Your task to perform on an android device: Empty the shopping cart on target. Search for "macbook pro" on target, select the first entry, and add it to the cart. Image 0: 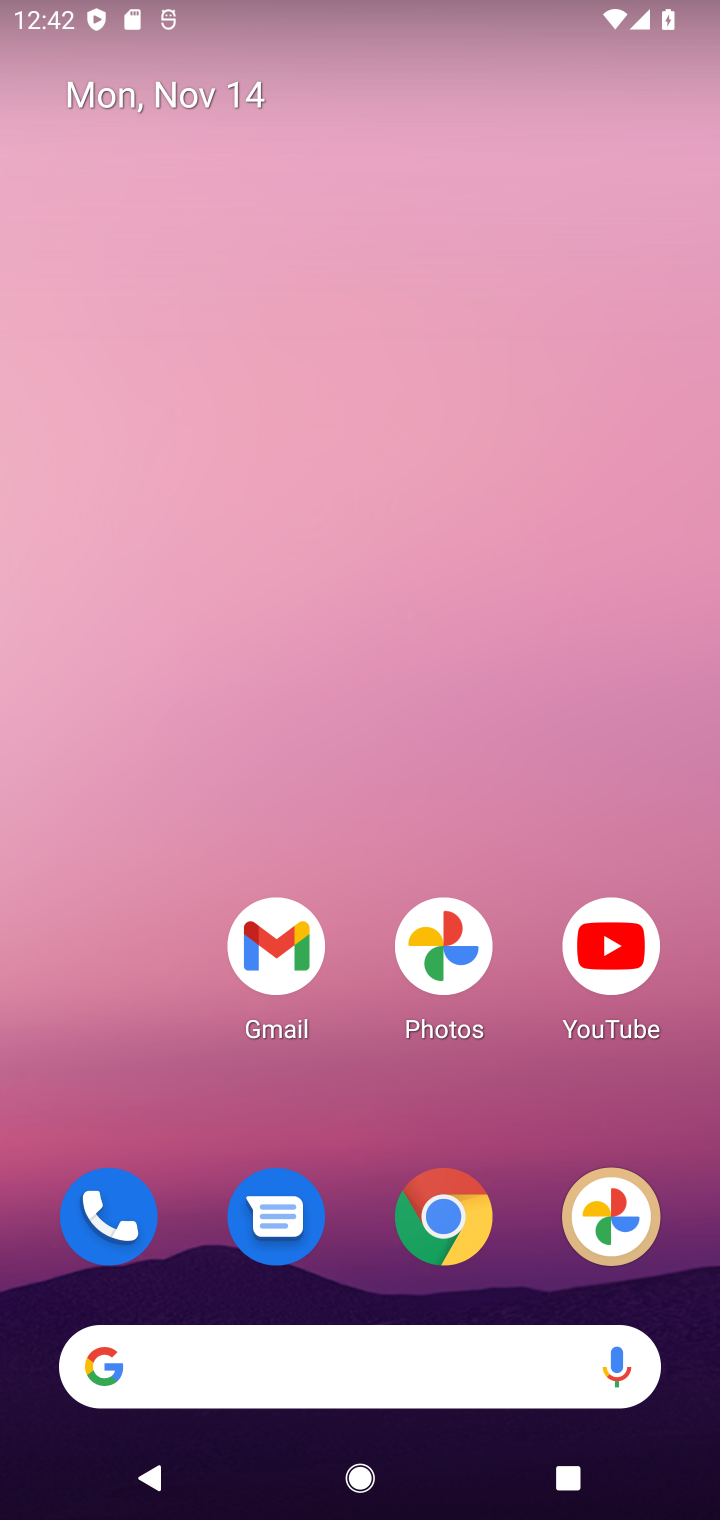
Step 0: click (470, 1222)
Your task to perform on an android device: Empty the shopping cart on target. Search for "macbook pro" on target, select the first entry, and add it to the cart. Image 1: 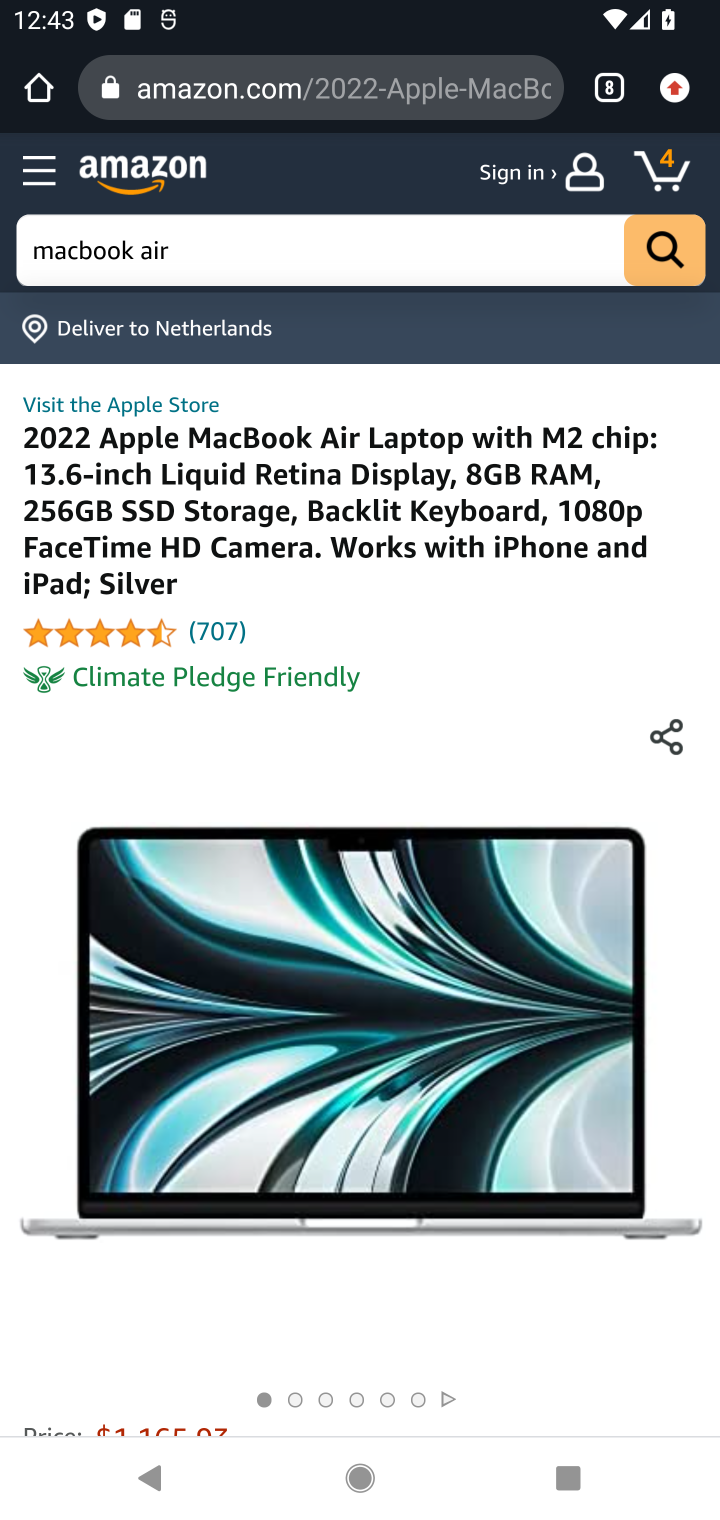
Step 1: click (480, 1155)
Your task to perform on an android device: Empty the shopping cart on target. Search for "macbook pro" on target, select the first entry, and add it to the cart. Image 2: 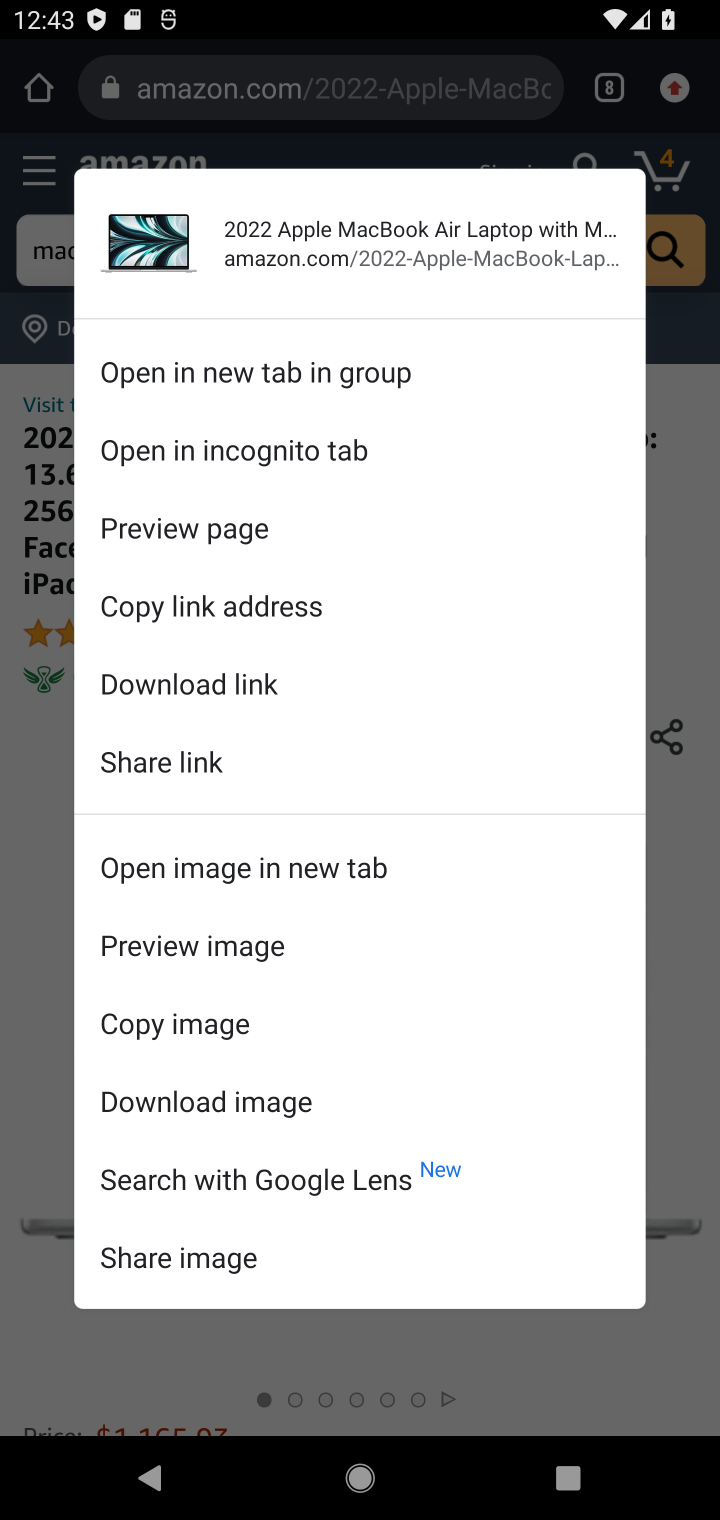
Step 2: click (480, 1146)
Your task to perform on an android device: Empty the shopping cart on target. Search for "macbook pro" on target, select the first entry, and add it to the cart. Image 3: 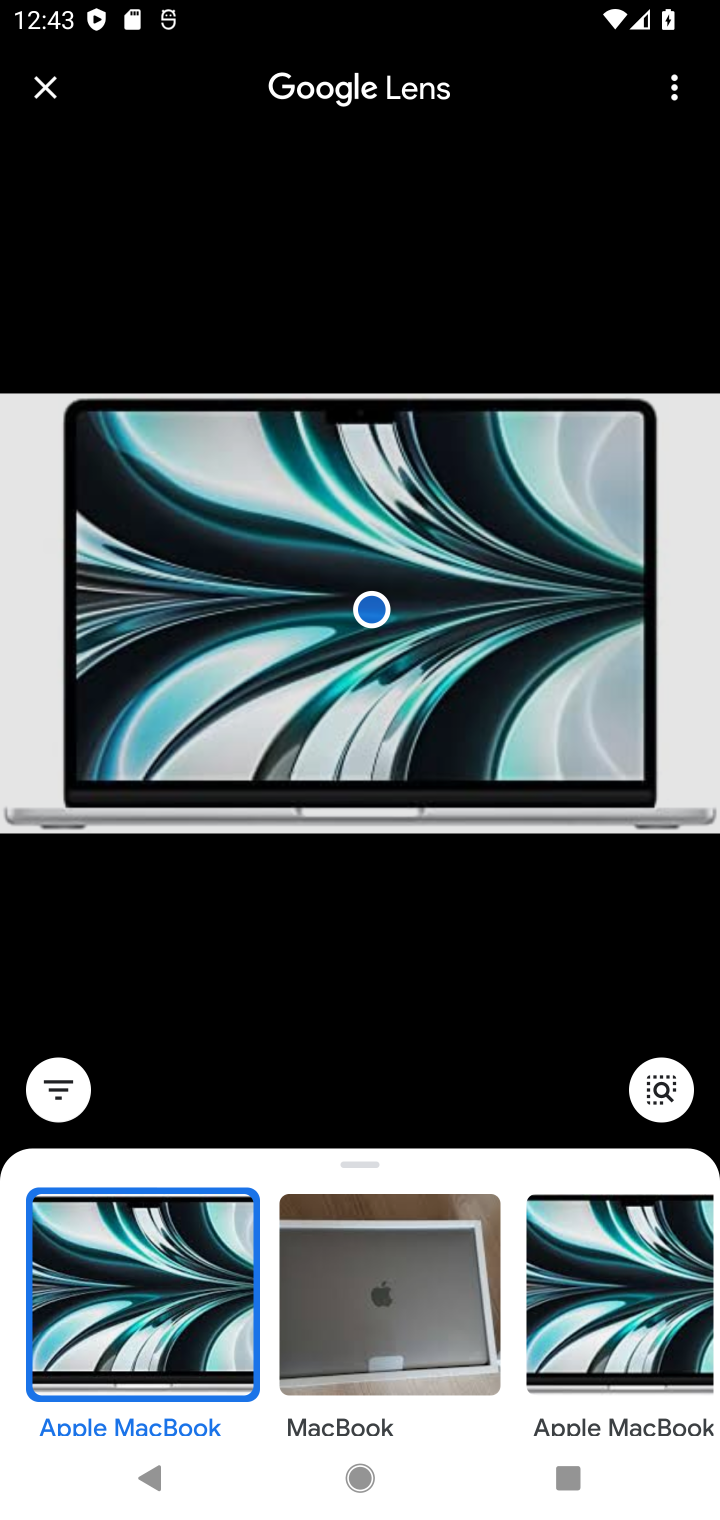
Step 3: press back button
Your task to perform on an android device: Empty the shopping cart on target. Search for "macbook pro" on target, select the first entry, and add it to the cart. Image 4: 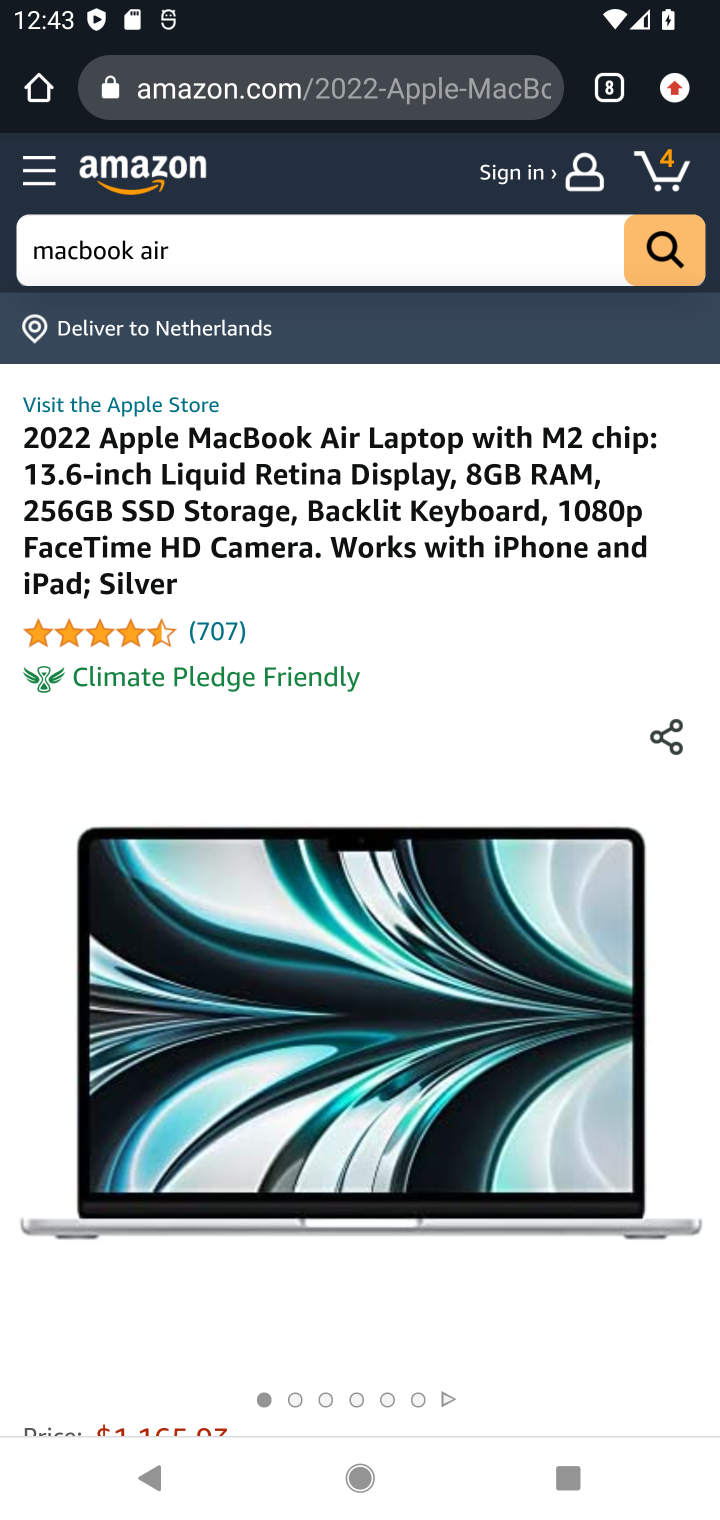
Step 4: press home button
Your task to perform on an android device: Empty the shopping cart on target. Search for "macbook pro" on target, select the first entry, and add it to the cart. Image 5: 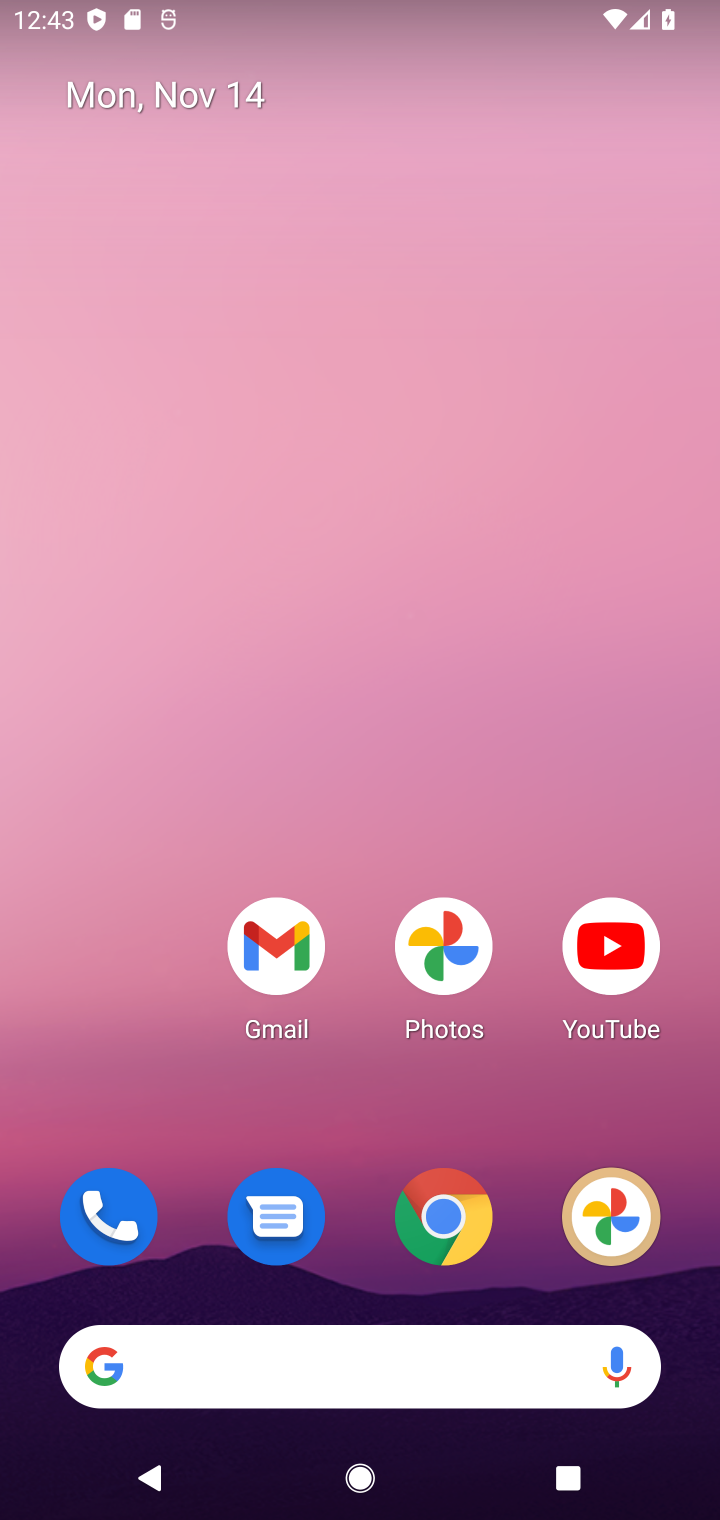
Step 5: click (431, 1179)
Your task to perform on an android device: Empty the shopping cart on target. Search for "macbook pro" on target, select the first entry, and add it to the cart. Image 6: 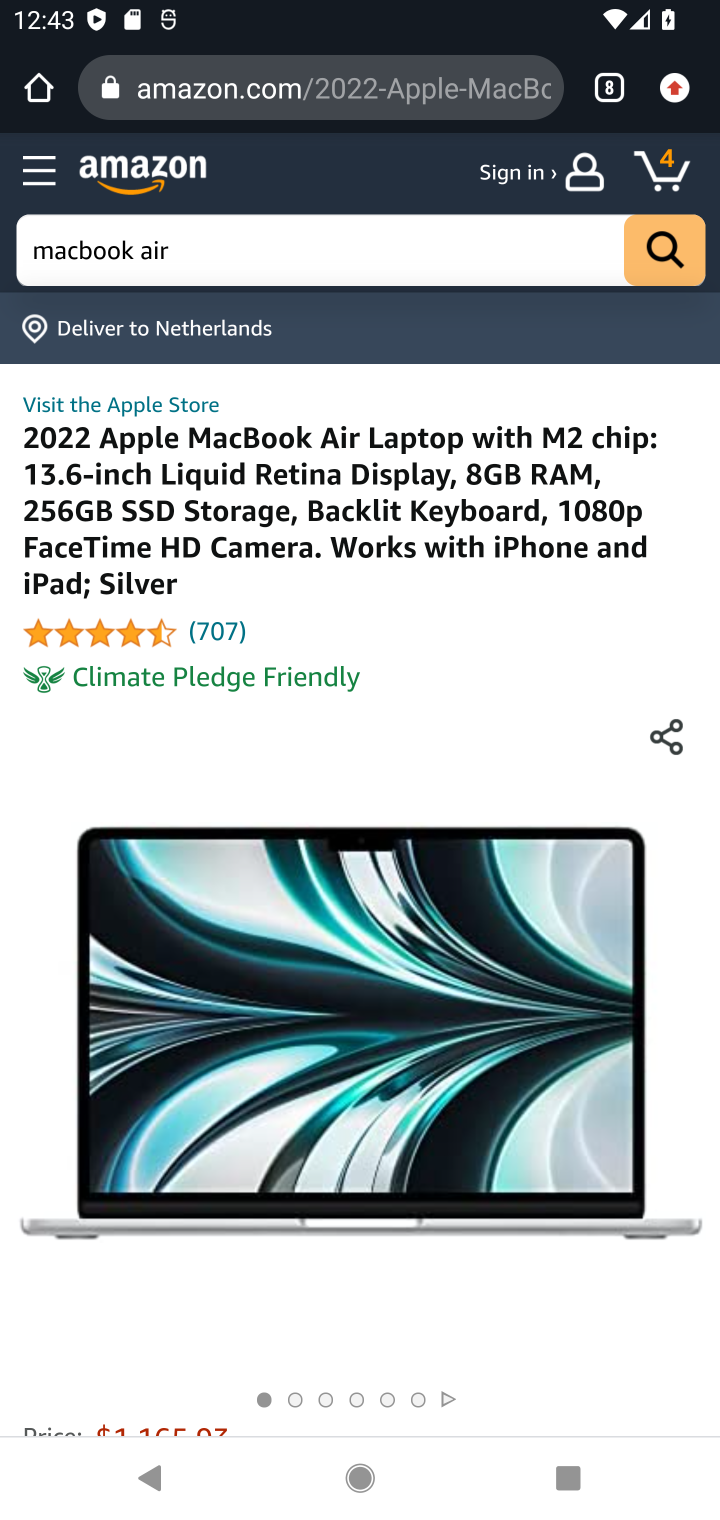
Step 6: click (612, 78)
Your task to perform on an android device: Empty the shopping cart on target. Search for "macbook pro" on target, select the first entry, and add it to the cart. Image 7: 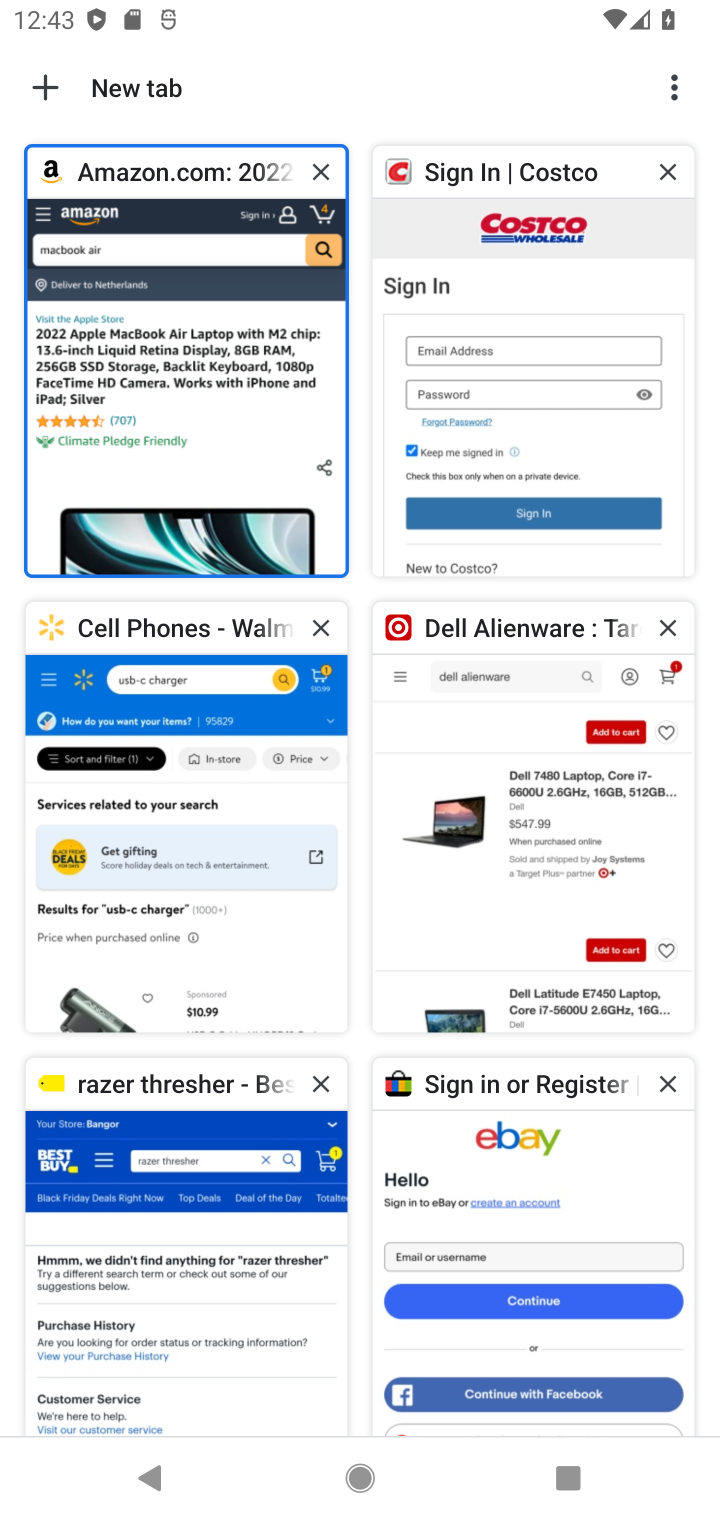
Step 7: click (438, 857)
Your task to perform on an android device: Empty the shopping cart on target. Search for "macbook pro" on target, select the first entry, and add it to the cart. Image 8: 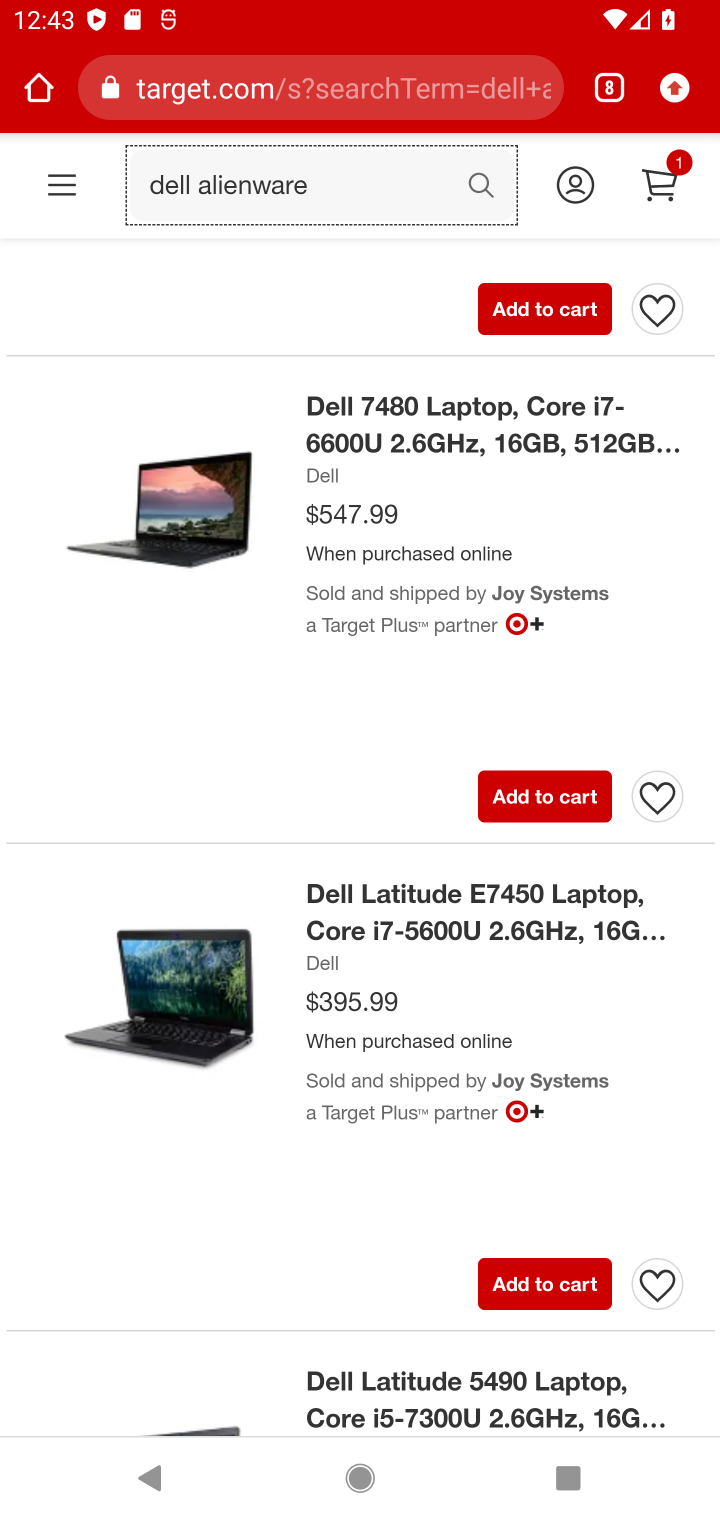
Step 8: click (664, 178)
Your task to perform on an android device: Empty the shopping cart on target. Search for "macbook pro" on target, select the first entry, and add it to the cart. Image 9: 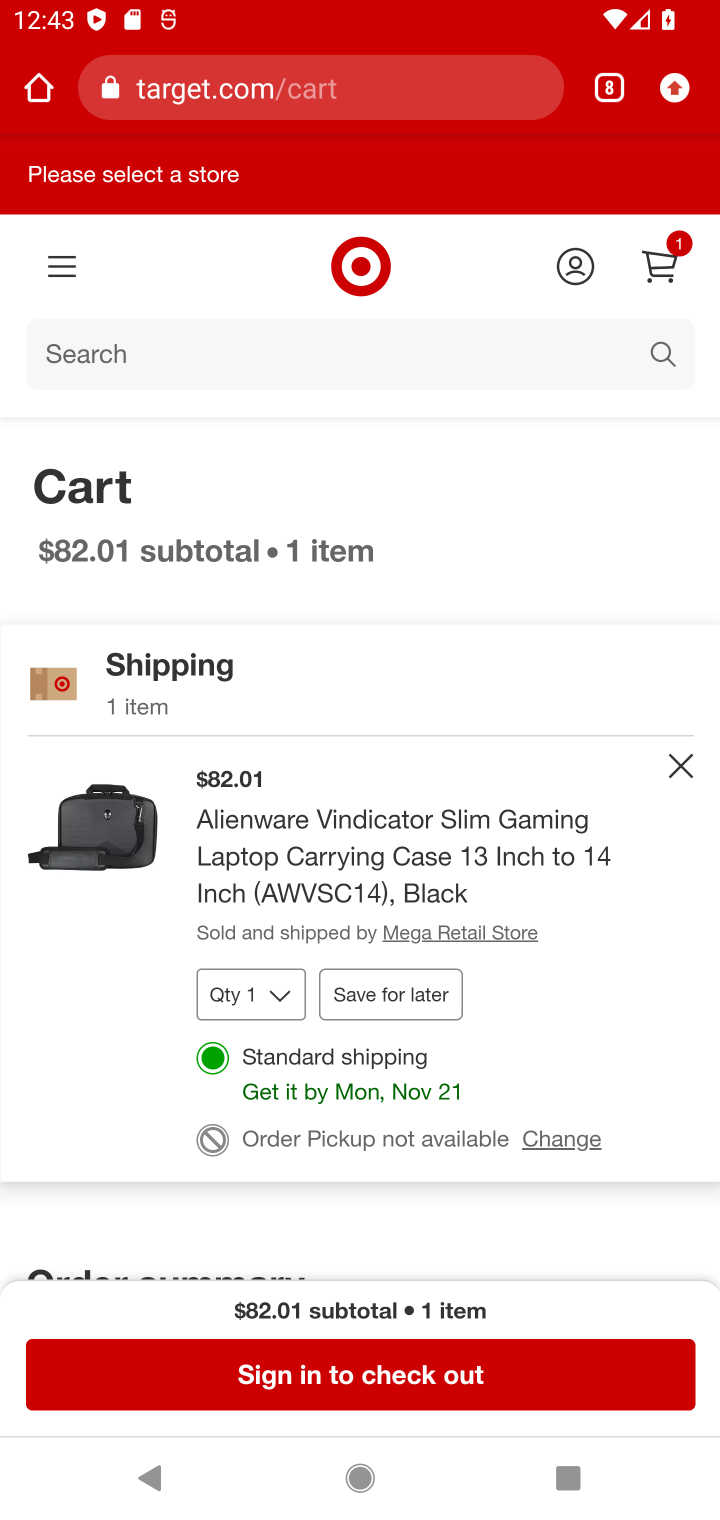
Step 9: click (682, 756)
Your task to perform on an android device: Empty the shopping cart on target. Search for "macbook pro" on target, select the first entry, and add it to the cart. Image 10: 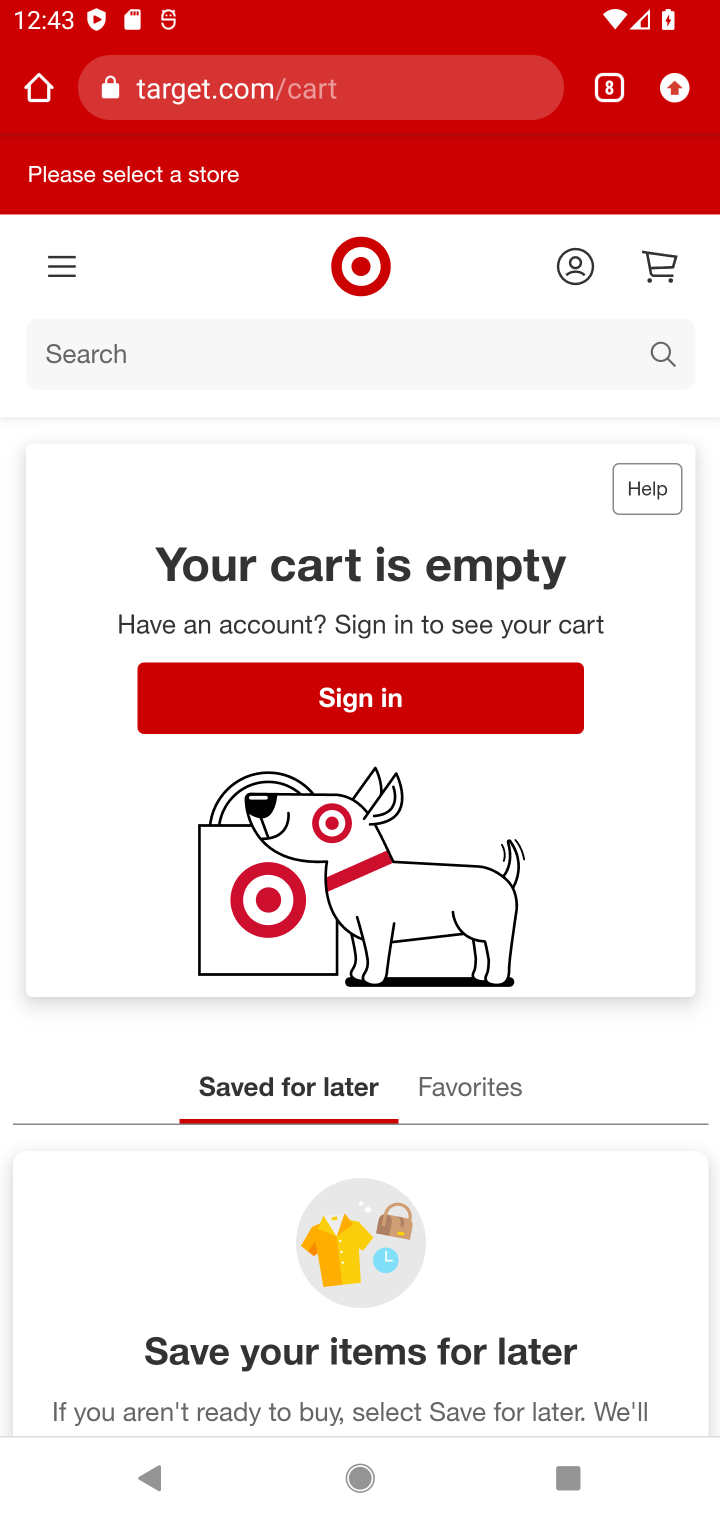
Step 10: click (143, 365)
Your task to perform on an android device: Empty the shopping cart on target. Search for "macbook pro" on target, select the first entry, and add it to the cart. Image 11: 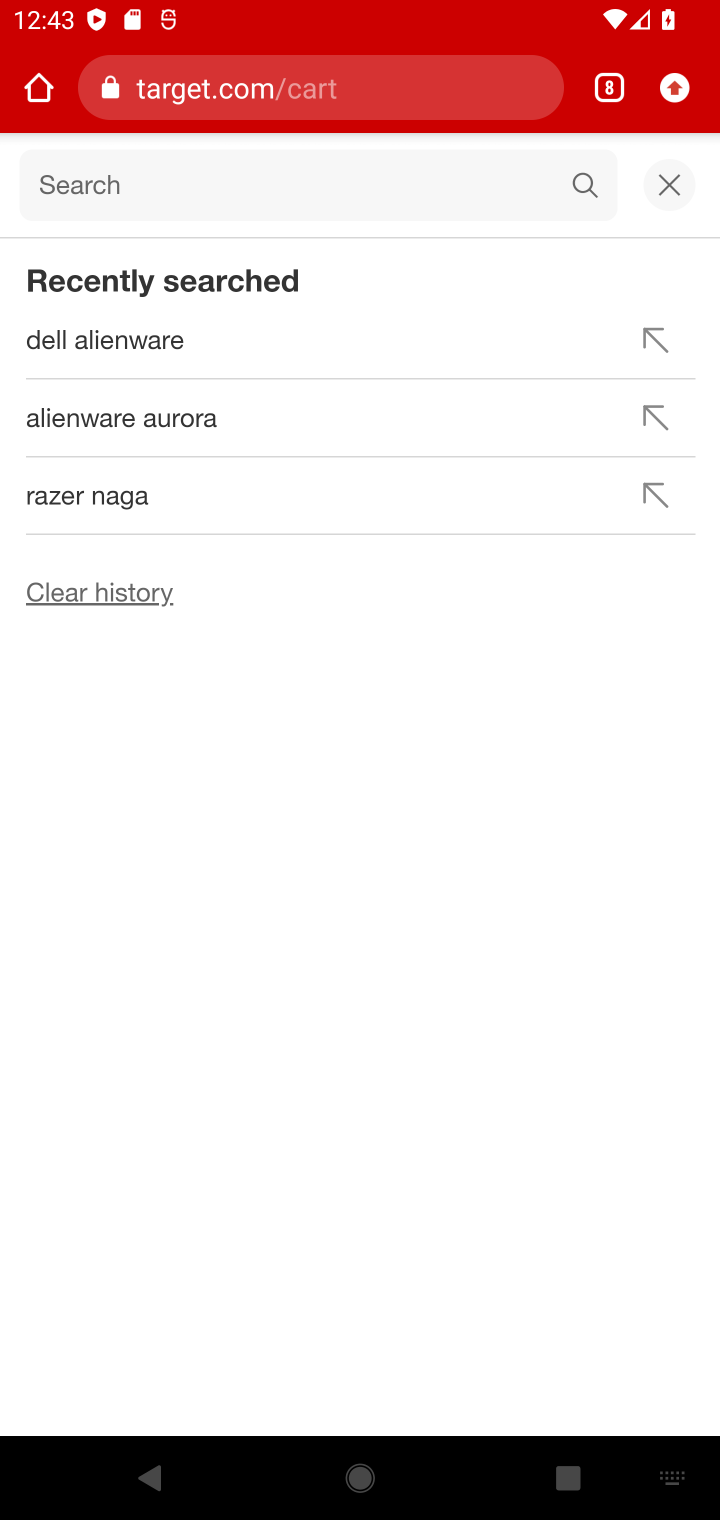
Step 11: type "macbook pro"
Your task to perform on an android device: Empty the shopping cart on target. Search for "macbook pro" on target, select the first entry, and add it to the cart. Image 12: 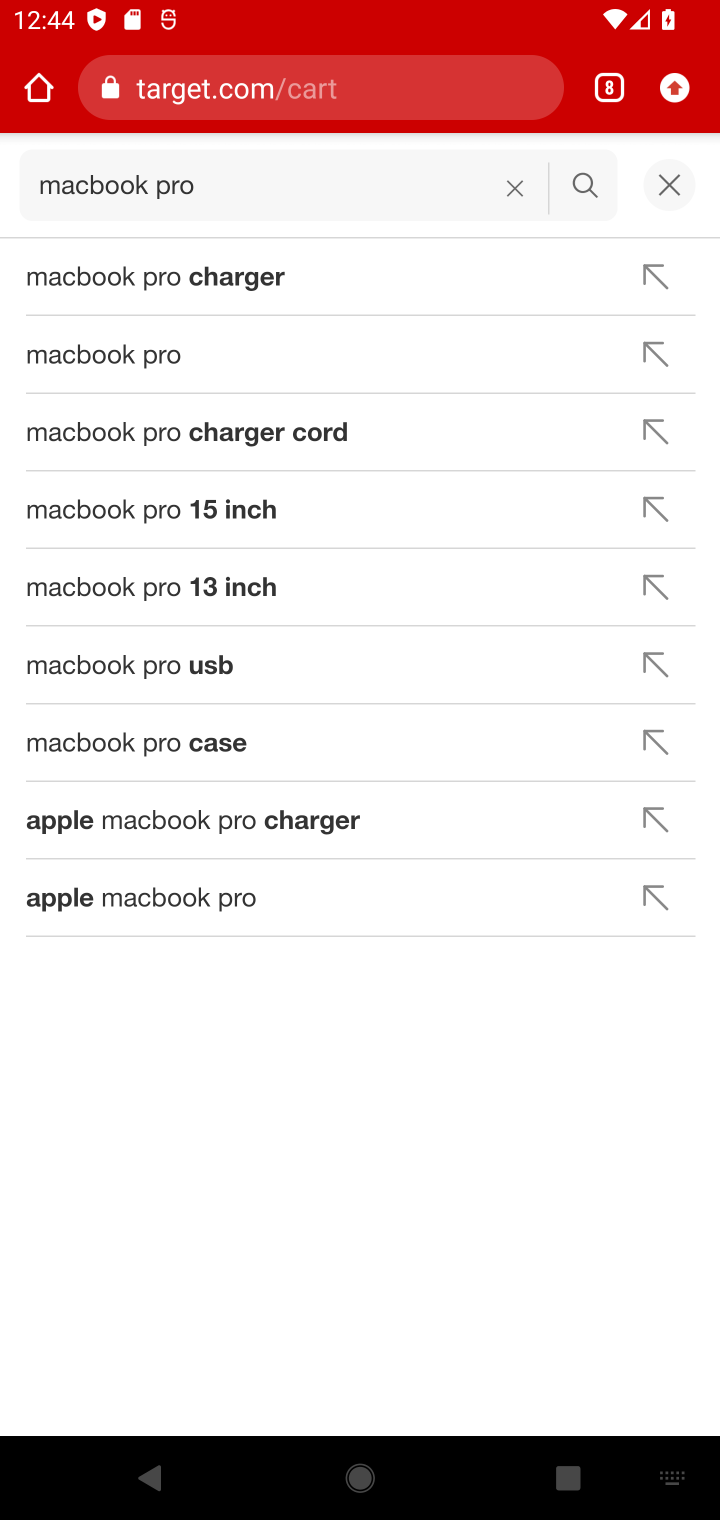
Step 12: click (97, 354)
Your task to perform on an android device: Empty the shopping cart on target. Search for "macbook pro" on target, select the first entry, and add it to the cart. Image 13: 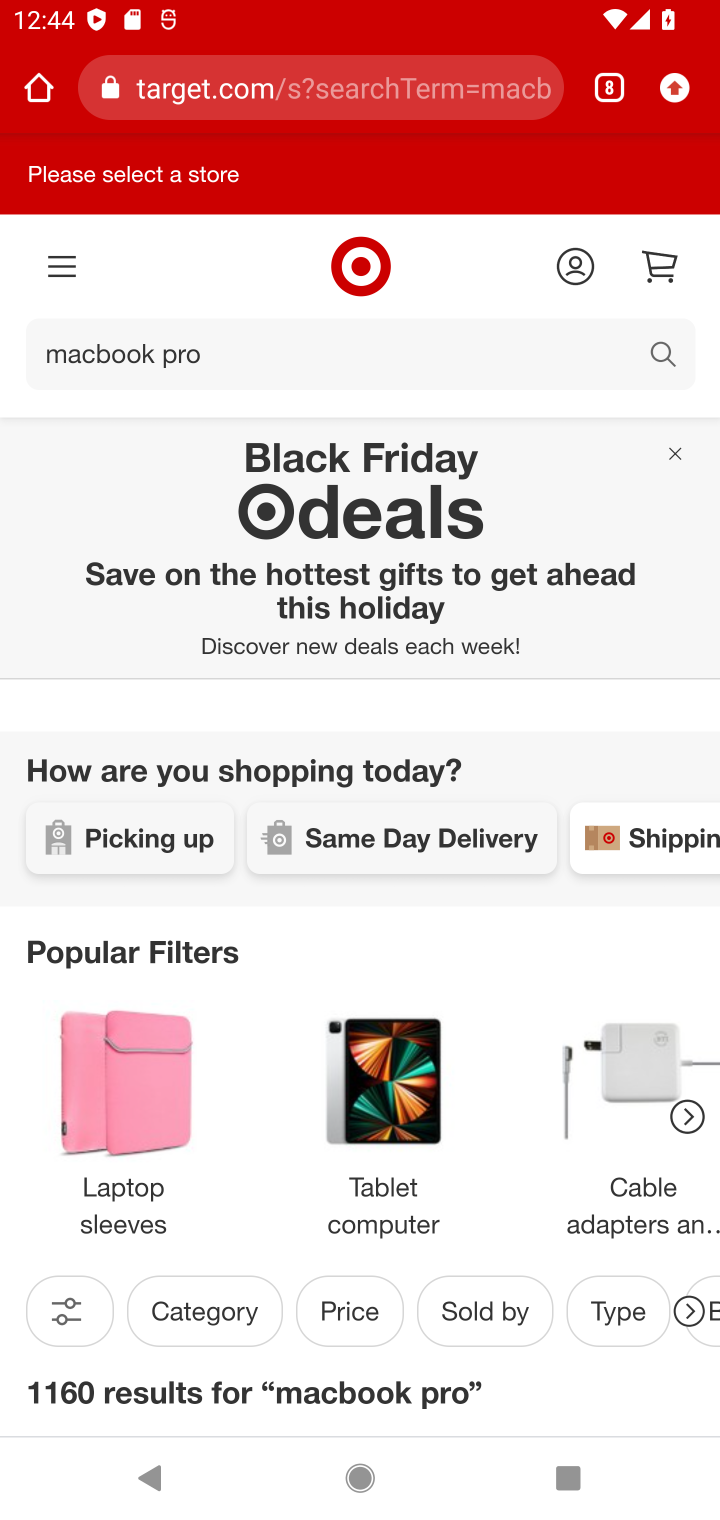
Step 13: drag from (205, 1188) to (262, 543)
Your task to perform on an android device: Empty the shopping cart on target. Search for "macbook pro" on target, select the first entry, and add it to the cart. Image 14: 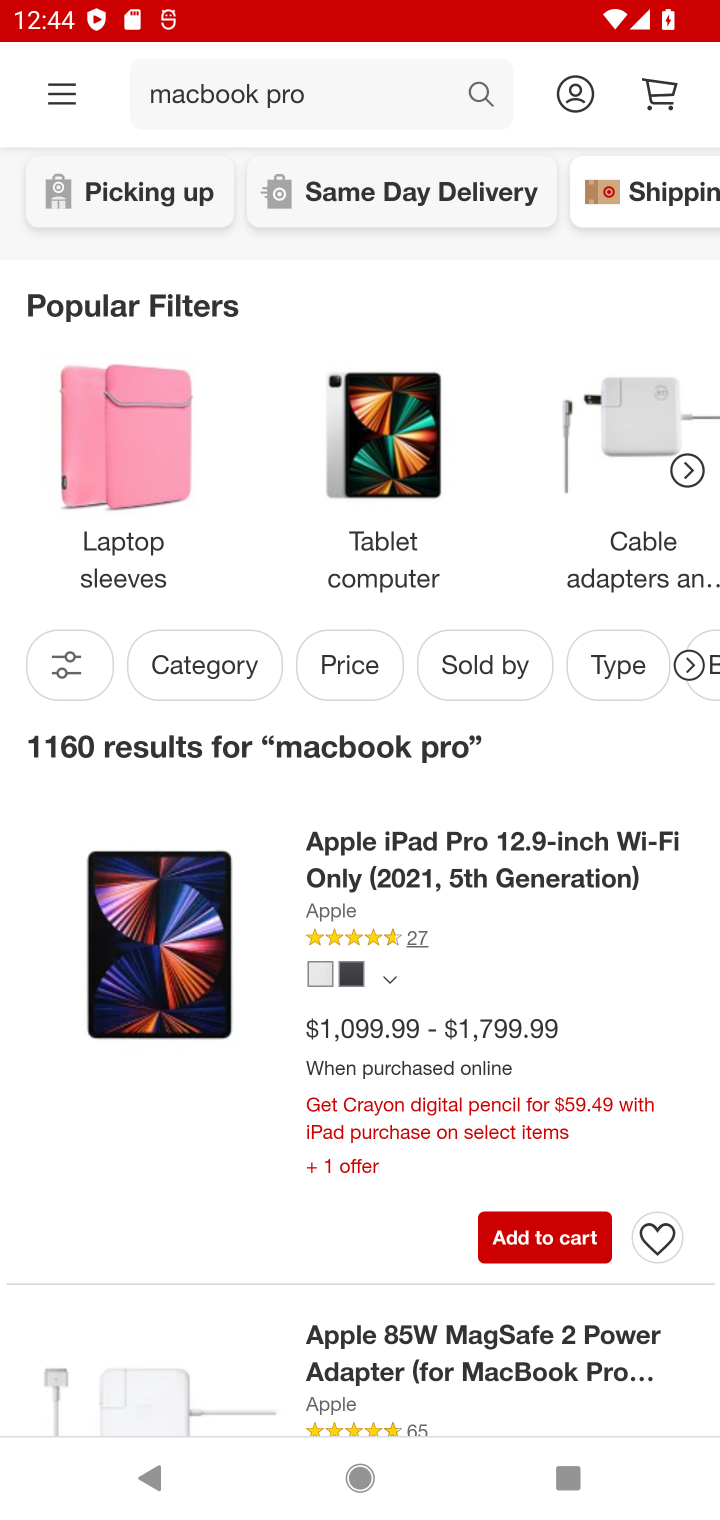
Step 14: drag from (478, 938) to (475, 70)
Your task to perform on an android device: Empty the shopping cart on target. Search for "macbook pro" on target, select the first entry, and add it to the cart. Image 15: 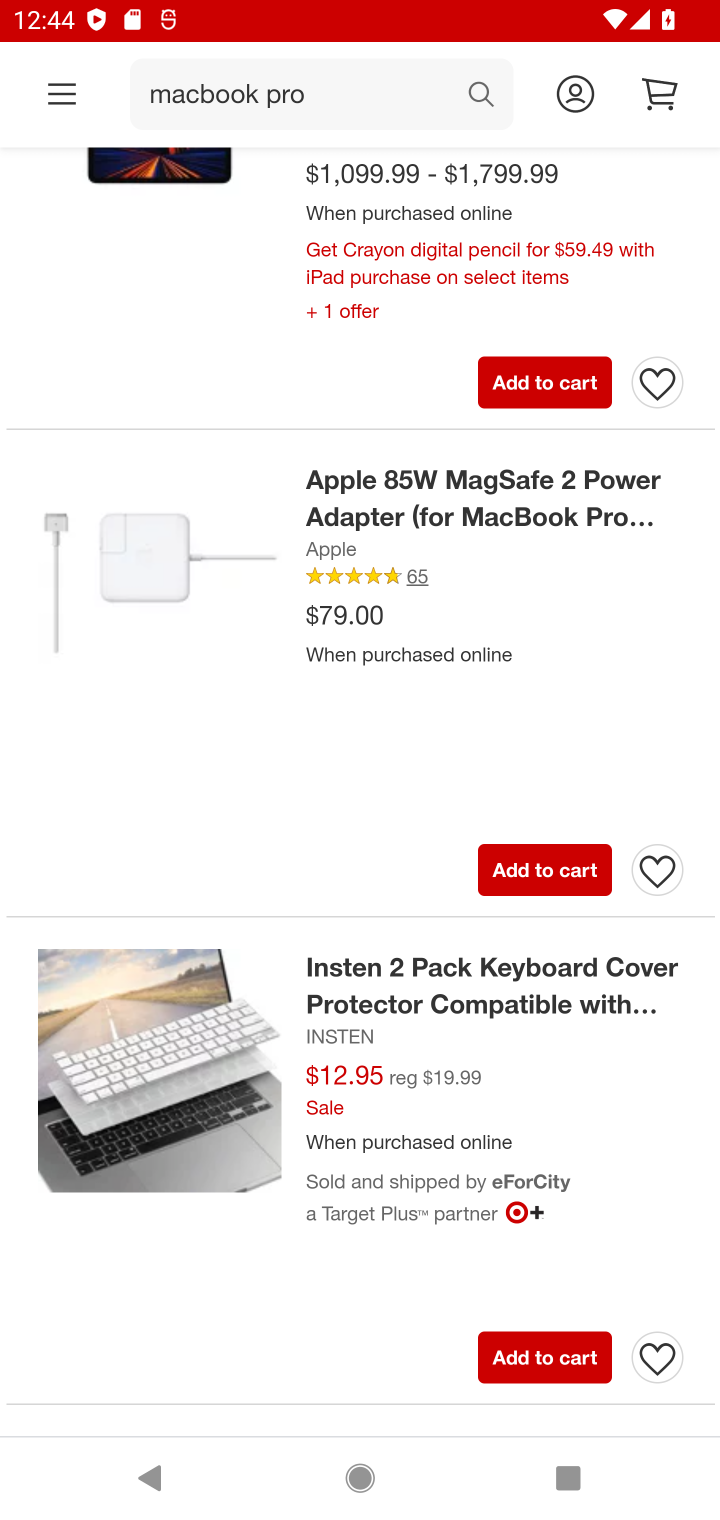
Step 15: drag from (426, 653) to (362, 49)
Your task to perform on an android device: Empty the shopping cart on target. Search for "macbook pro" on target, select the first entry, and add it to the cart. Image 16: 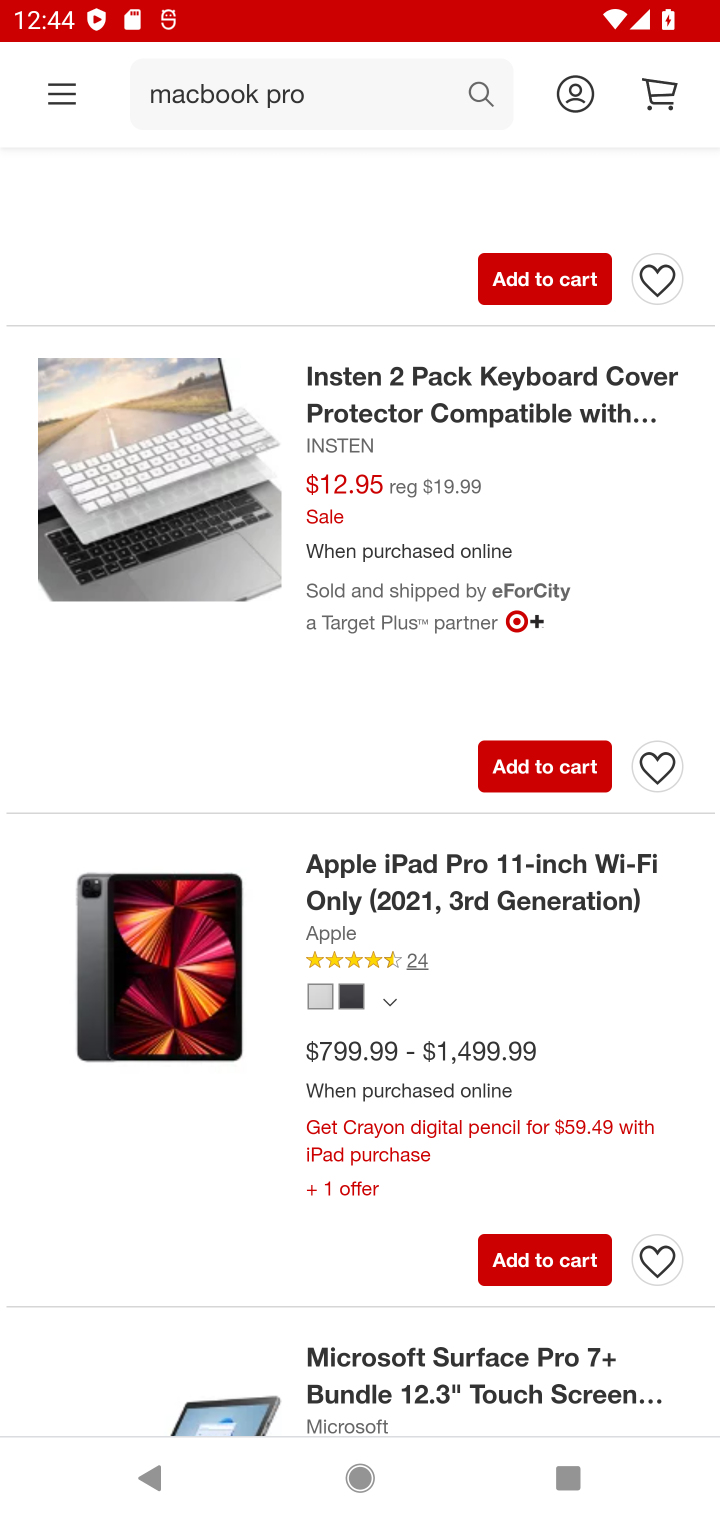
Step 16: click (468, 865)
Your task to perform on an android device: Empty the shopping cart on target. Search for "macbook pro" on target, select the first entry, and add it to the cart. Image 17: 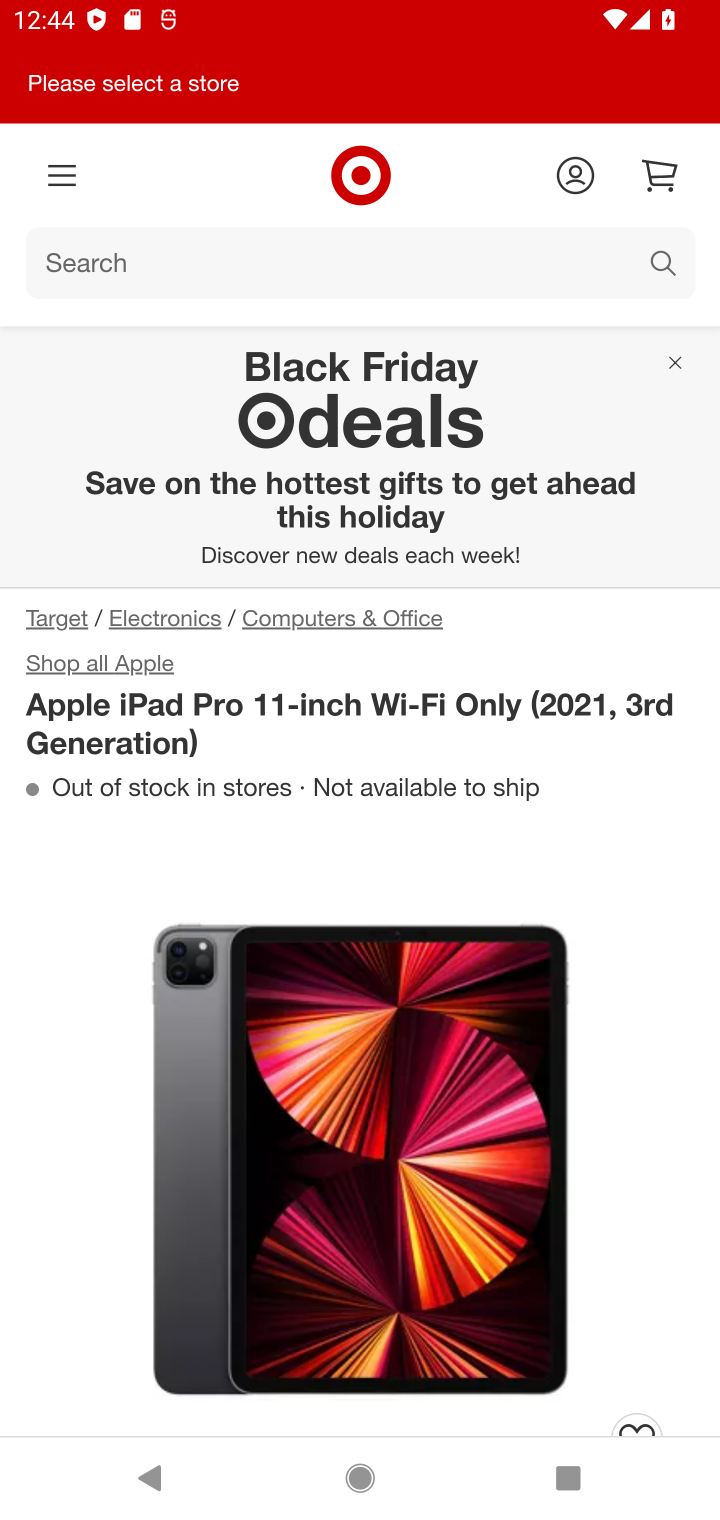
Step 17: drag from (718, 955) to (714, 820)
Your task to perform on an android device: Empty the shopping cart on target. Search for "macbook pro" on target, select the first entry, and add it to the cart. Image 18: 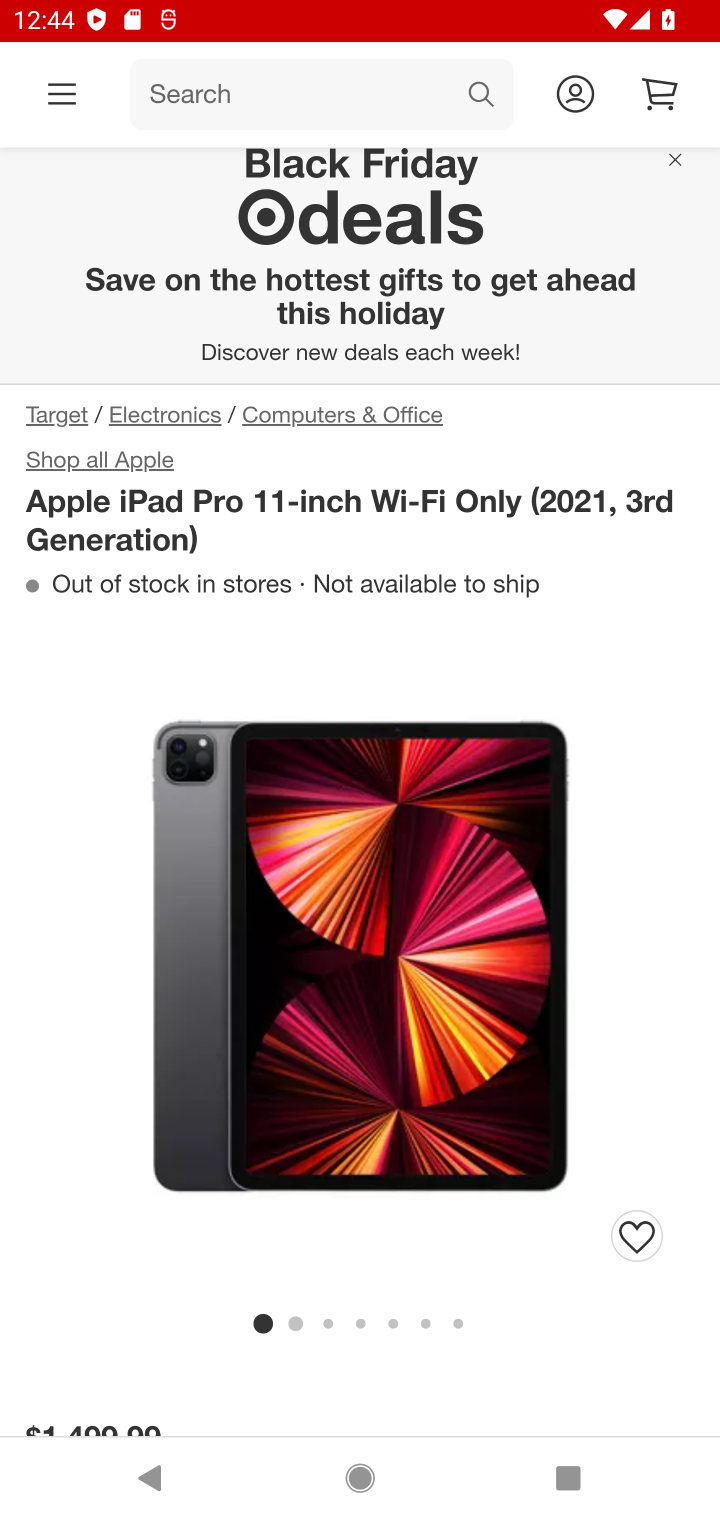
Step 18: drag from (409, 1299) to (540, 899)
Your task to perform on an android device: Empty the shopping cart on target. Search for "macbook pro" on target, select the first entry, and add it to the cart. Image 19: 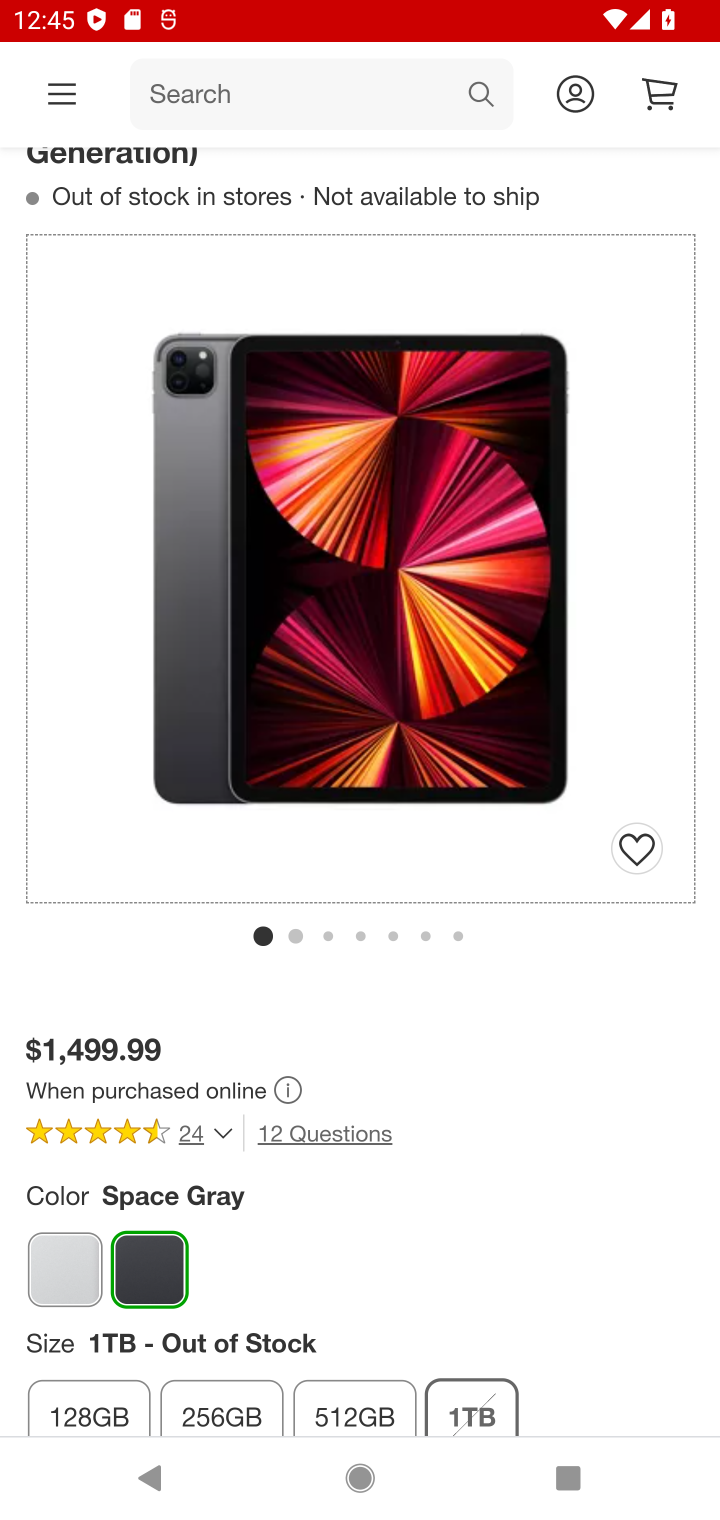
Step 19: click (212, 92)
Your task to perform on an android device: Empty the shopping cart on target. Search for "macbook pro" on target, select the first entry, and add it to the cart. Image 20: 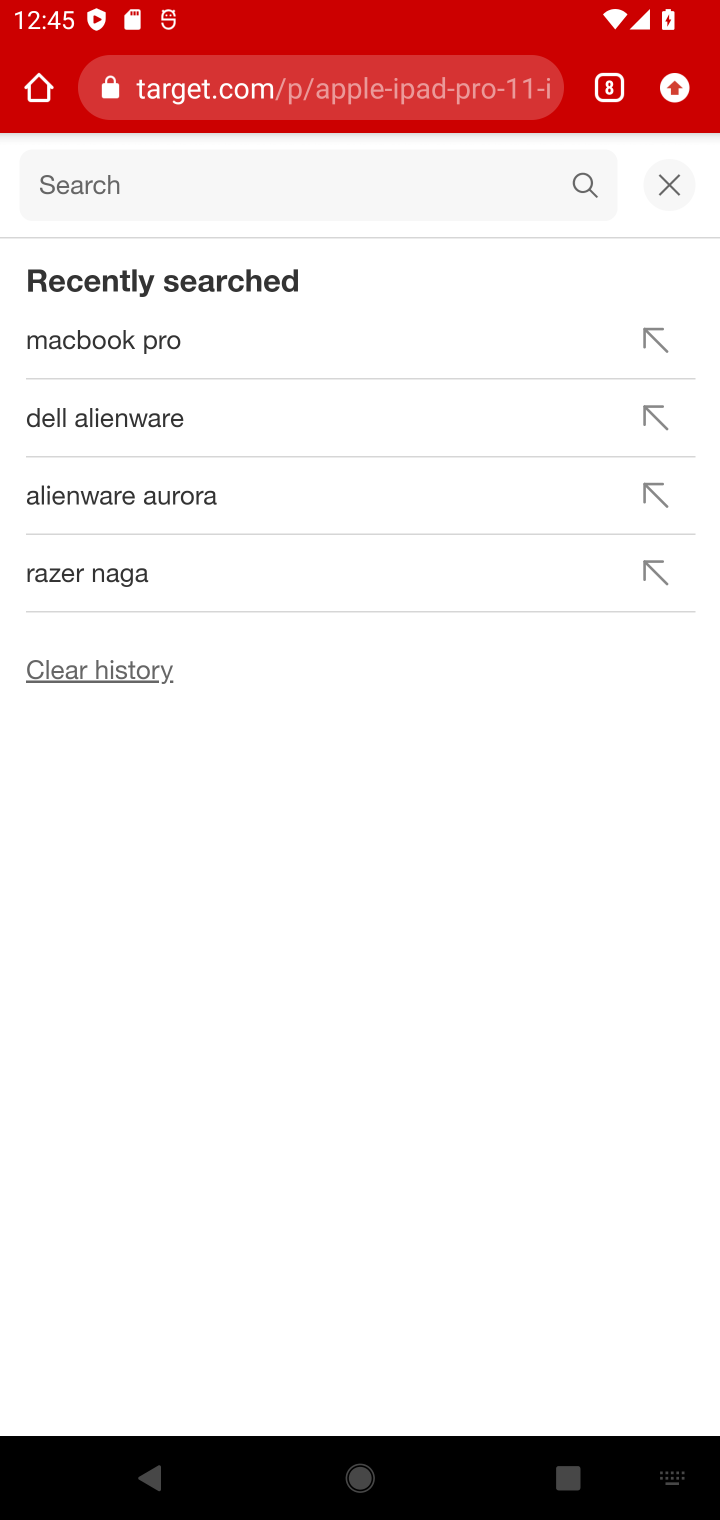
Step 20: type "macbook pro"
Your task to perform on an android device: Empty the shopping cart on target. Search for "macbook pro" on target, select the first entry, and add it to the cart. Image 21: 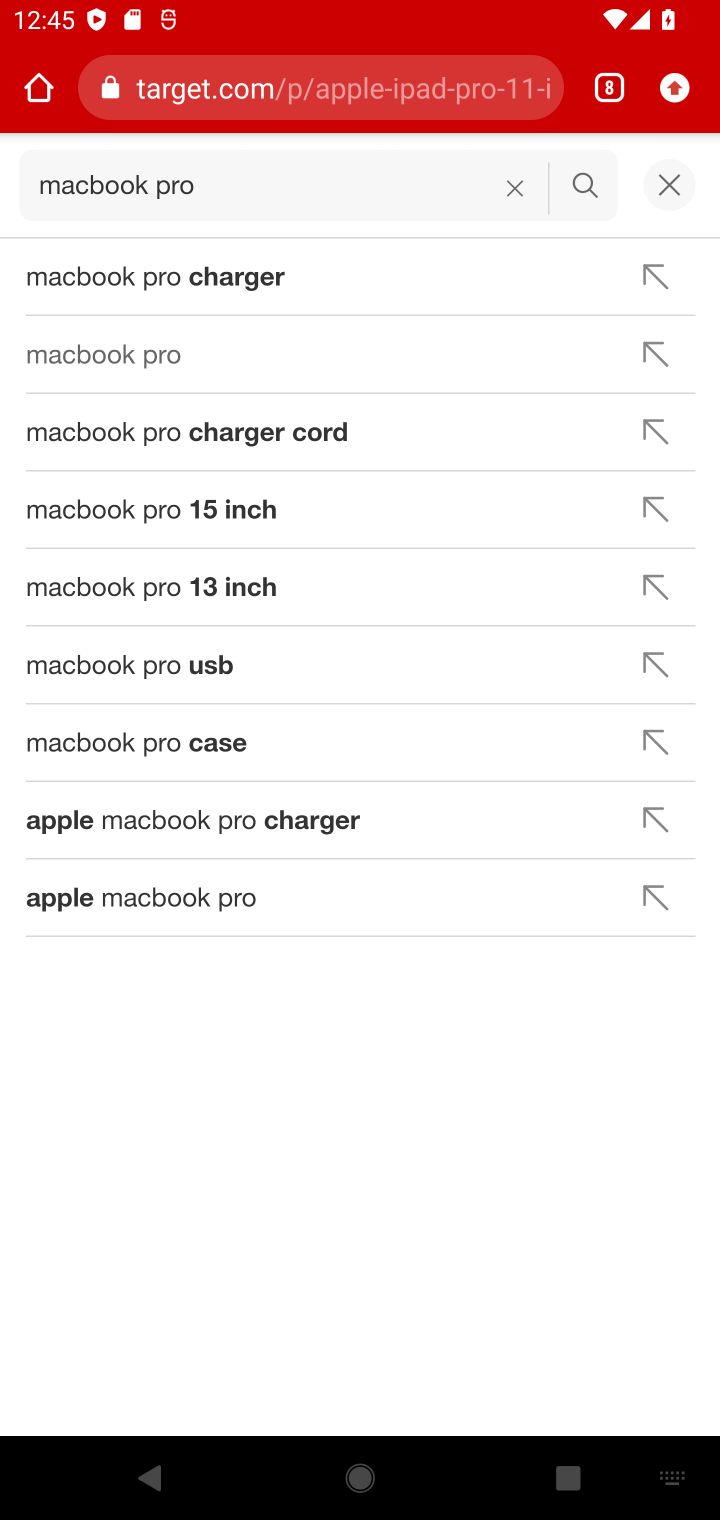
Step 21: click (132, 344)
Your task to perform on an android device: Empty the shopping cart on target. Search for "macbook pro" on target, select the first entry, and add it to the cart. Image 22: 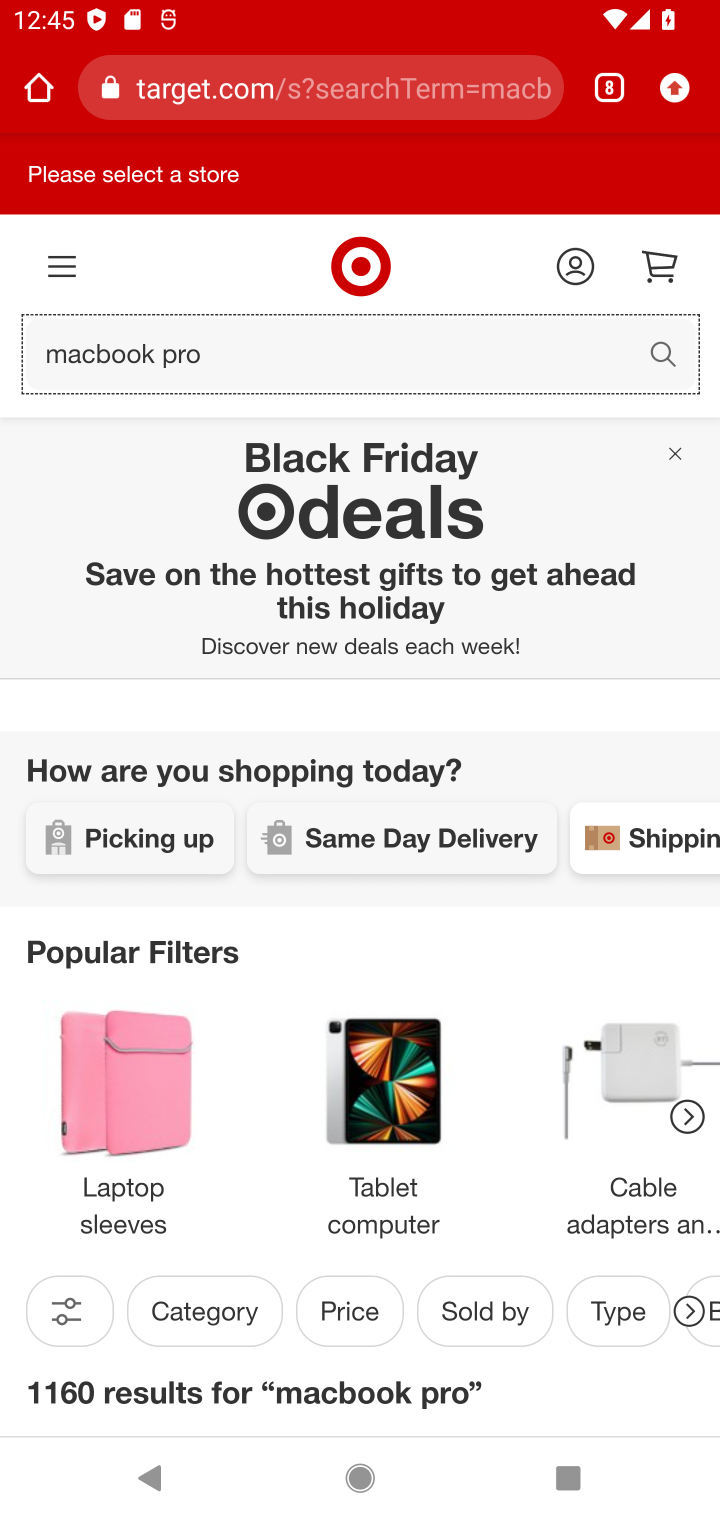
Step 22: drag from (310, 1133) to (545, 88)
Your task to perform on an android device: Empty the shopping cart on target. Search for "macbook pro" on target, select the first entry, and add it to the cart. Image 23: 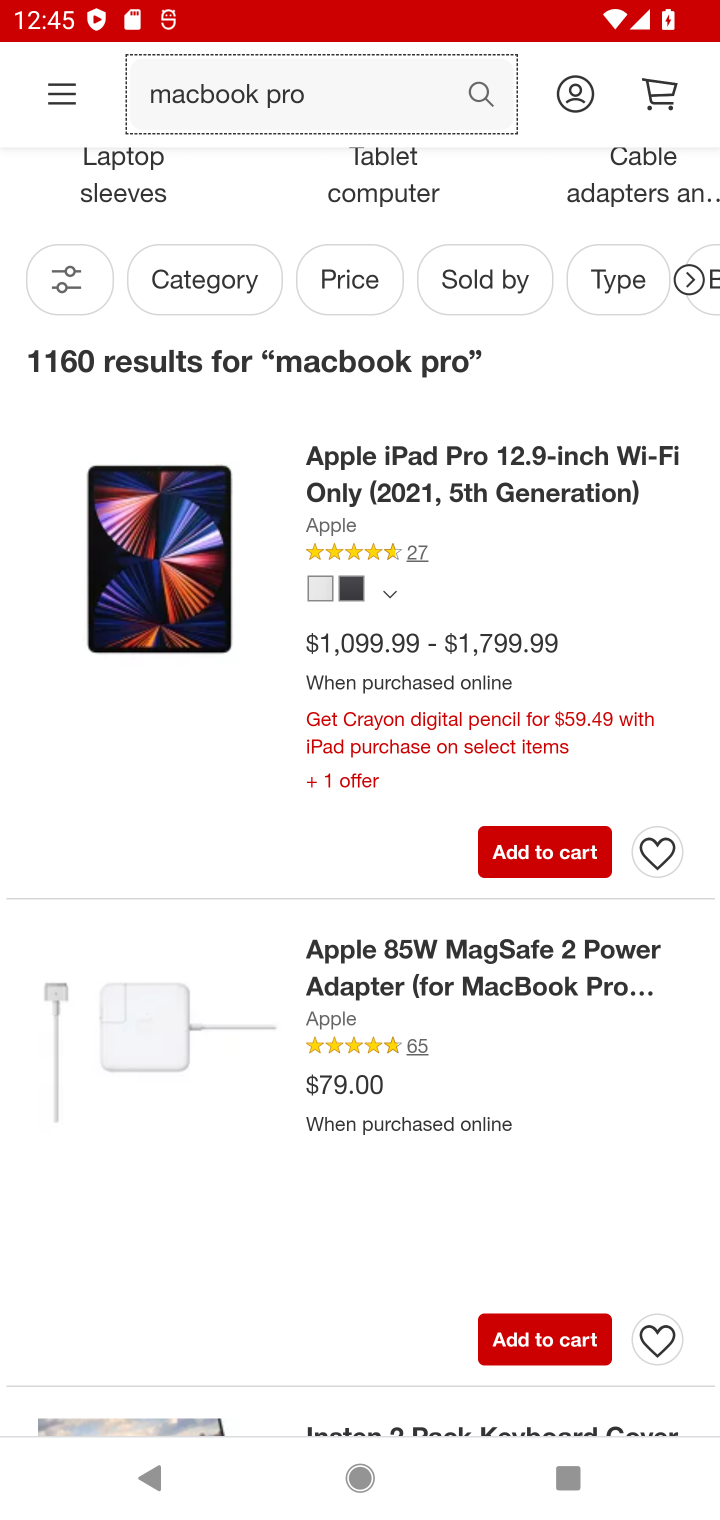
Step 23: click (526, 837)
Your task to perform on an android device: Empty the shopping cart on target. Search for "macbook pro" on target, select the first entry, and add it to the cart. Image 24: 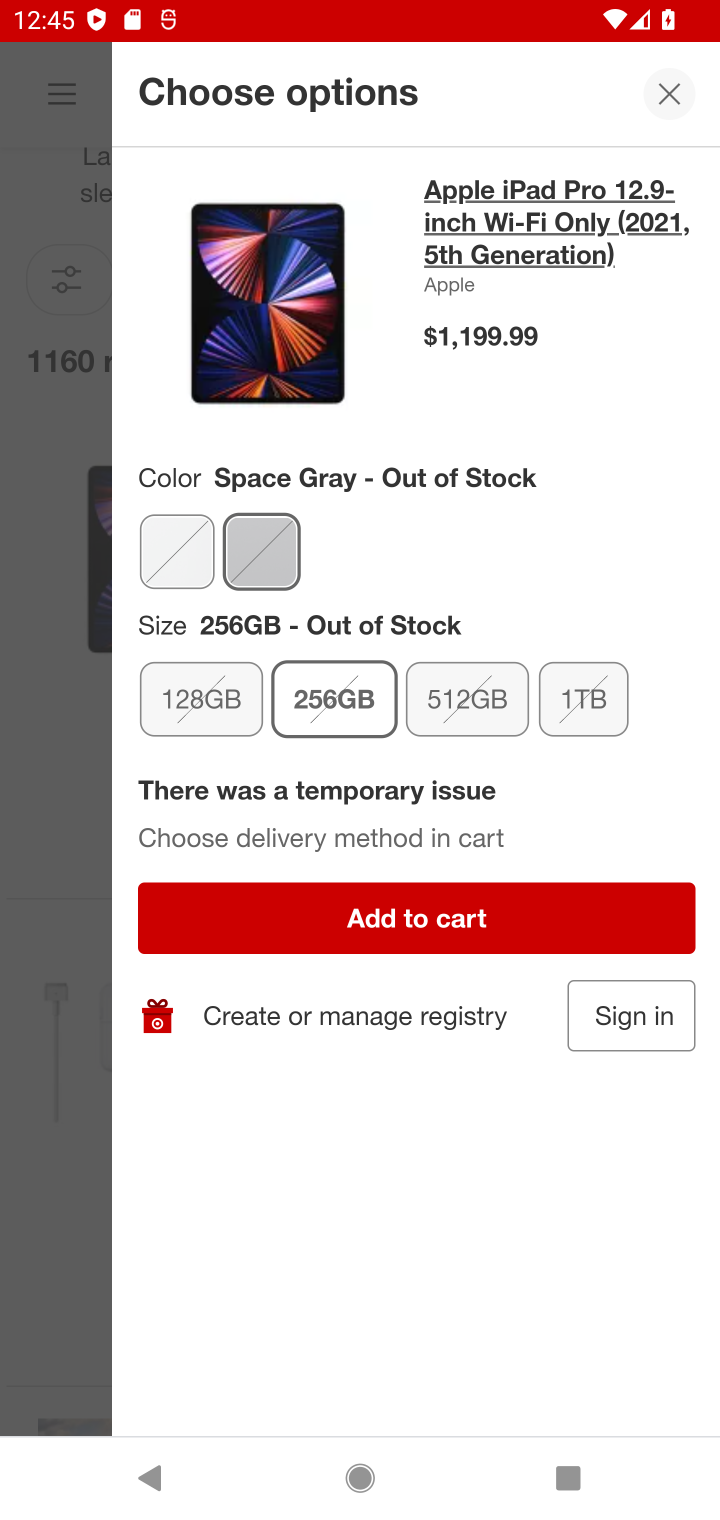
Step 24: click (294, 922)
Your task to perform on an android device: Empty the shopping cart on target. Search for "macbook pro" on target, select the first entry, and add it to the cart. Image 25: 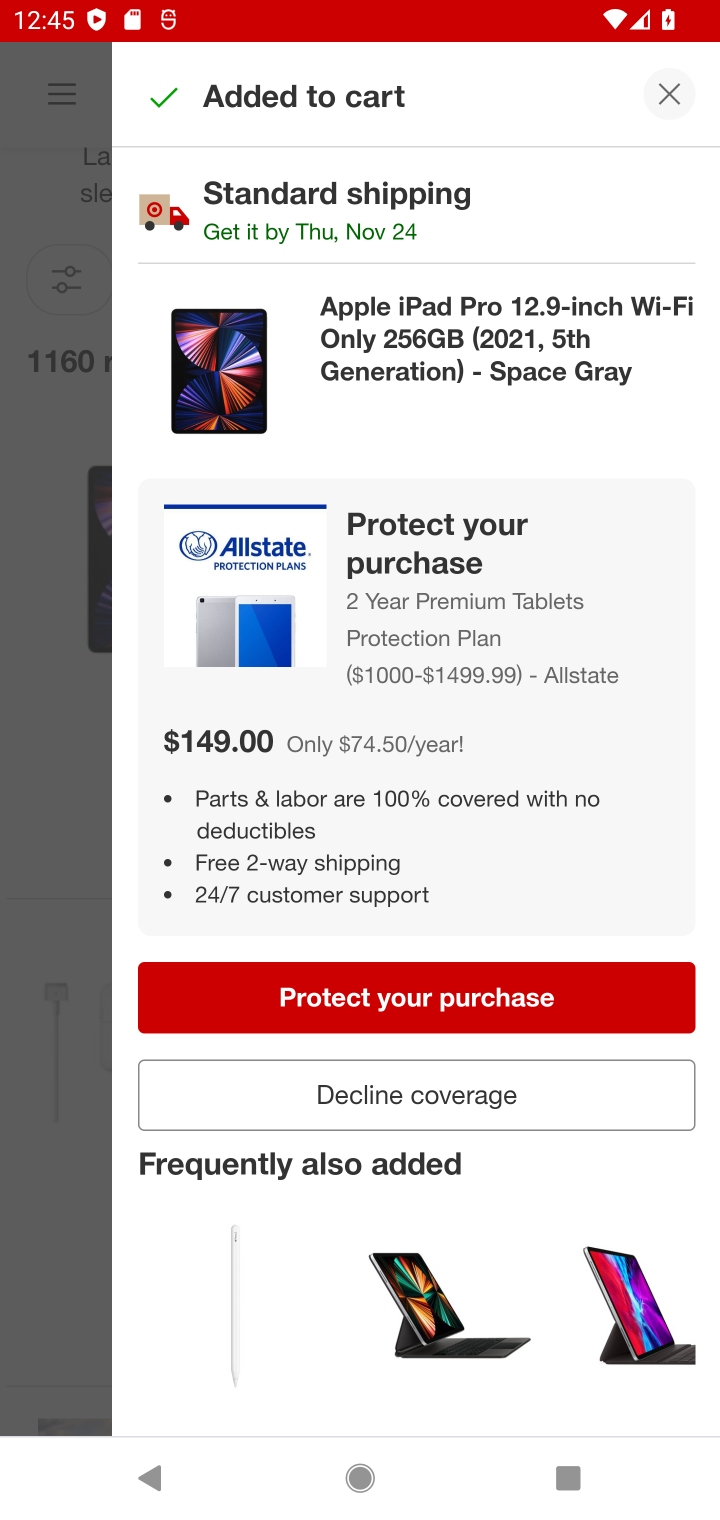
Step 25: task complete